Your task to perform on an android device: Go to wifi settings Image 0: 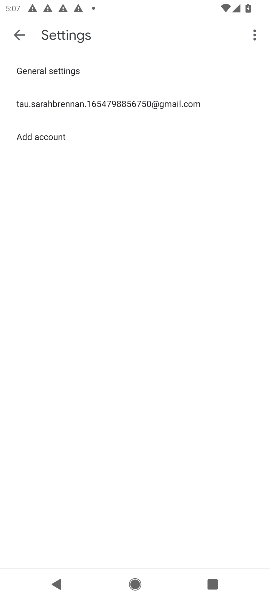
Step 0: press home button
Your task to perform on an android device: Go to wifi settings Image 1: 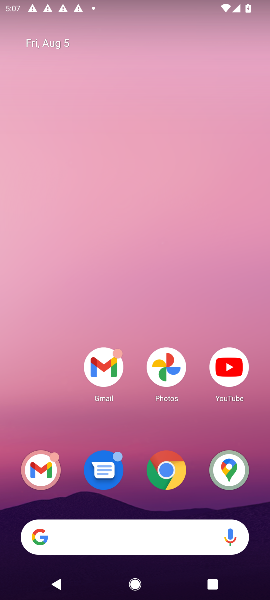
Step 1: drag from (146, 501) to (126, 130)
Your task to perform on an android device: Go to wifi settings Image 2: 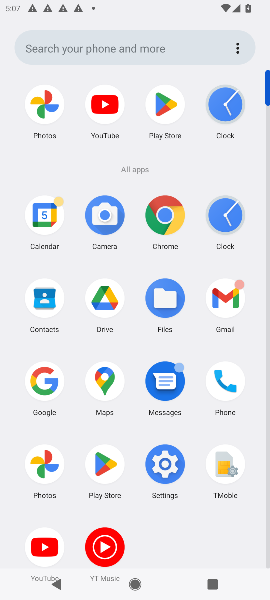
Step 2: click (168, 483)
Your task to perform on an android device: Go to wifi settings Image 3: 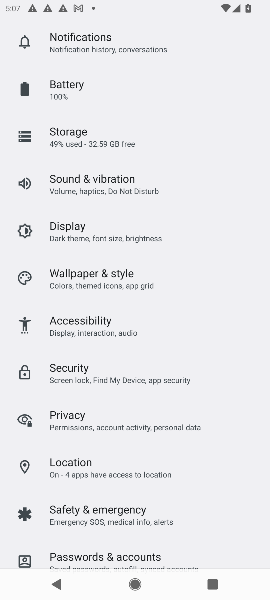
Step 3: drag from (103, 119) to (107, 490)
Your task to perform on an android device: Go to wifi settings Image 4: 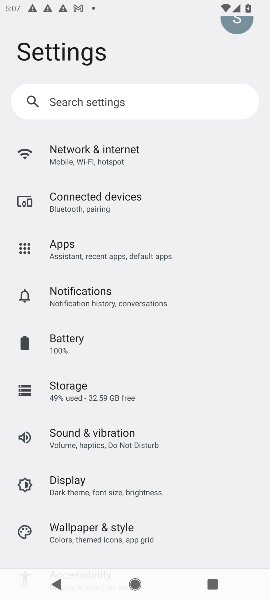
Step 4: click (98, 150)
Your task to perform on an android device: Go to wifi settings Image 5: 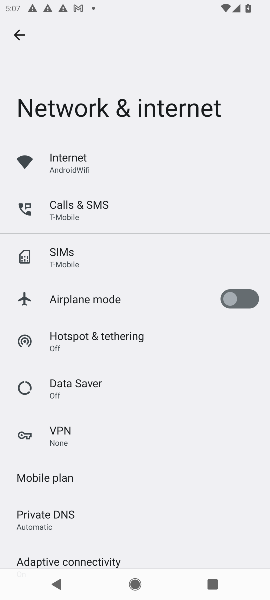
Step 5: click (43, 166)
Your task to perform on an android device: Go to wifi settings Image 6: 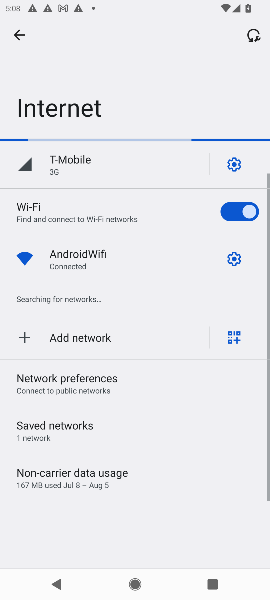
Step 6: click (65, 202)
Your task to perform on an android device: Go to wifi settings Image 7: 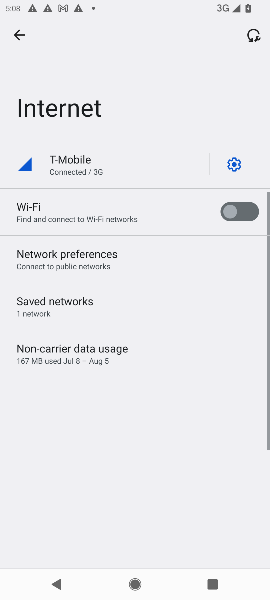
Step 7: click (65, 202)
Your task to perform on an android device: Go to wifi settings Image 8: 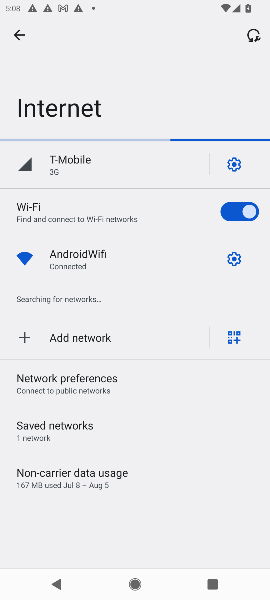
Step 8: task complete